Your task to perform on an android device: When is my next meeting? Image 0: 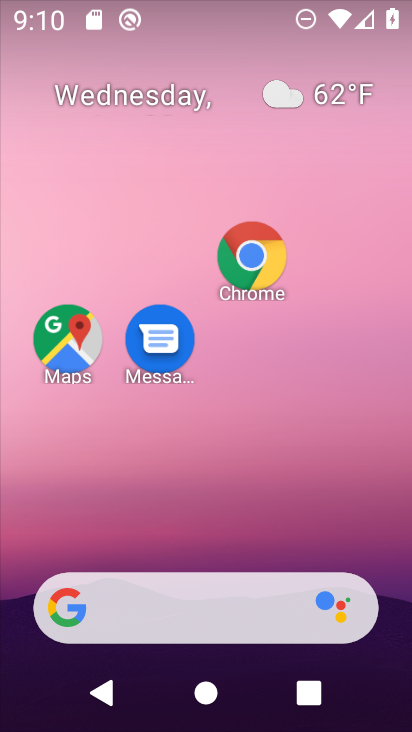
Step 0: drag from (220, 502) to (203, 23)
Your task to perform on an android device: When is my next meeting? Image 1: 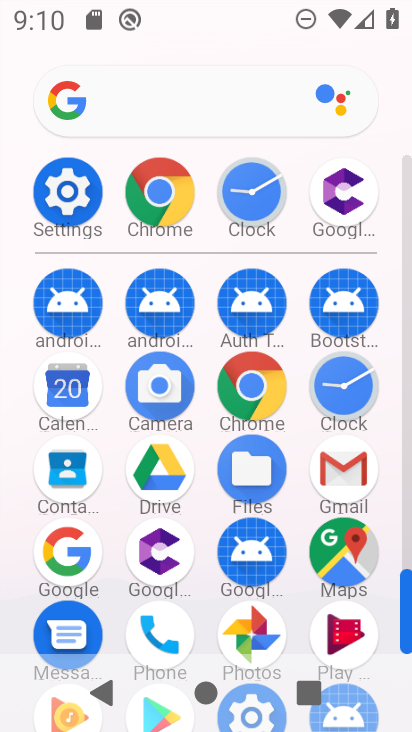
Step 1: click (62, 382)
Your task to perform on an android device: When is my next meeting? Image 2: 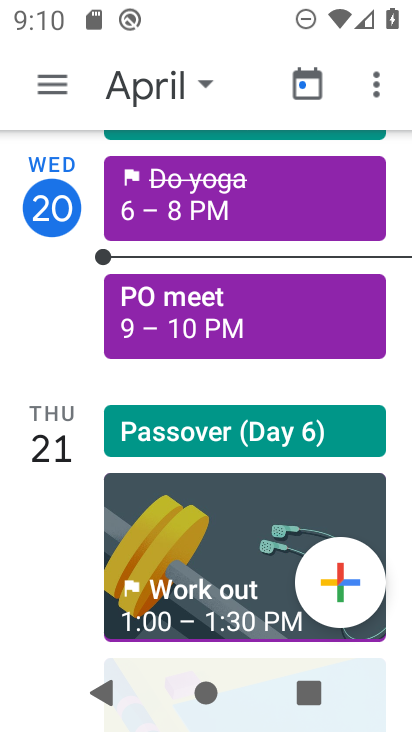
Step 2: click (208, 83)
Your task to perform on an android device: When is my next meeting? Image 3: 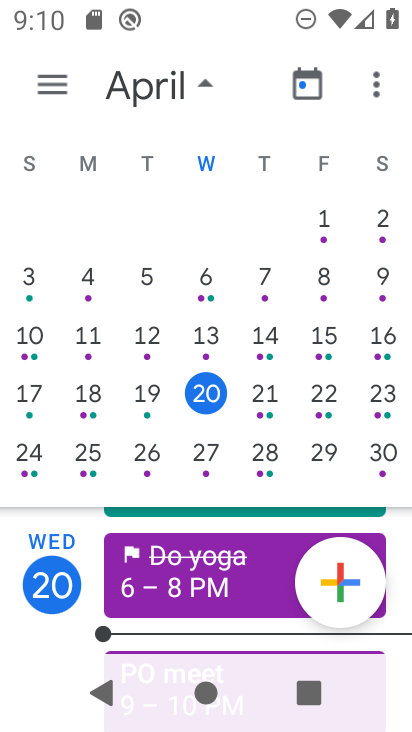
Step 3: click (325, 392)
Your task to perform on an android device: When is my next meeting? Image 4: 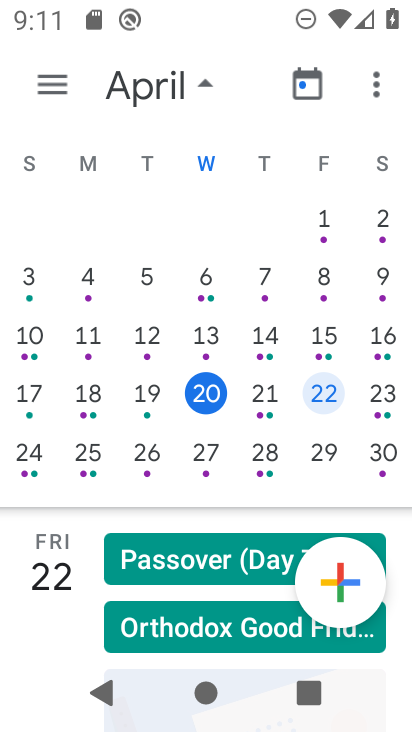
Step 4: task complete